Your task to perform on an android device: Search for flights from NYC to San Diego Image 0: 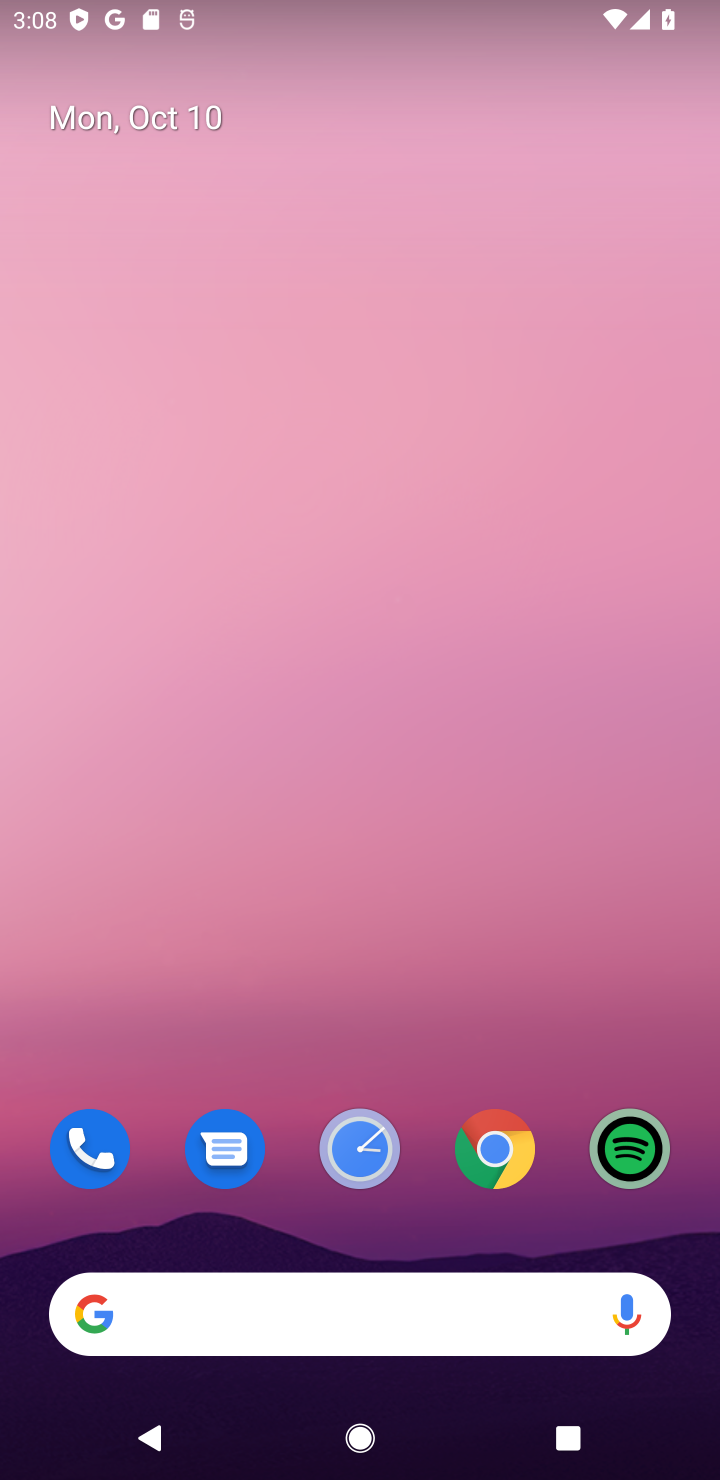
Step 0: click (325, 1319)
Your task to perform on an android device: Search for flights from NYC to San Diego Image 1: 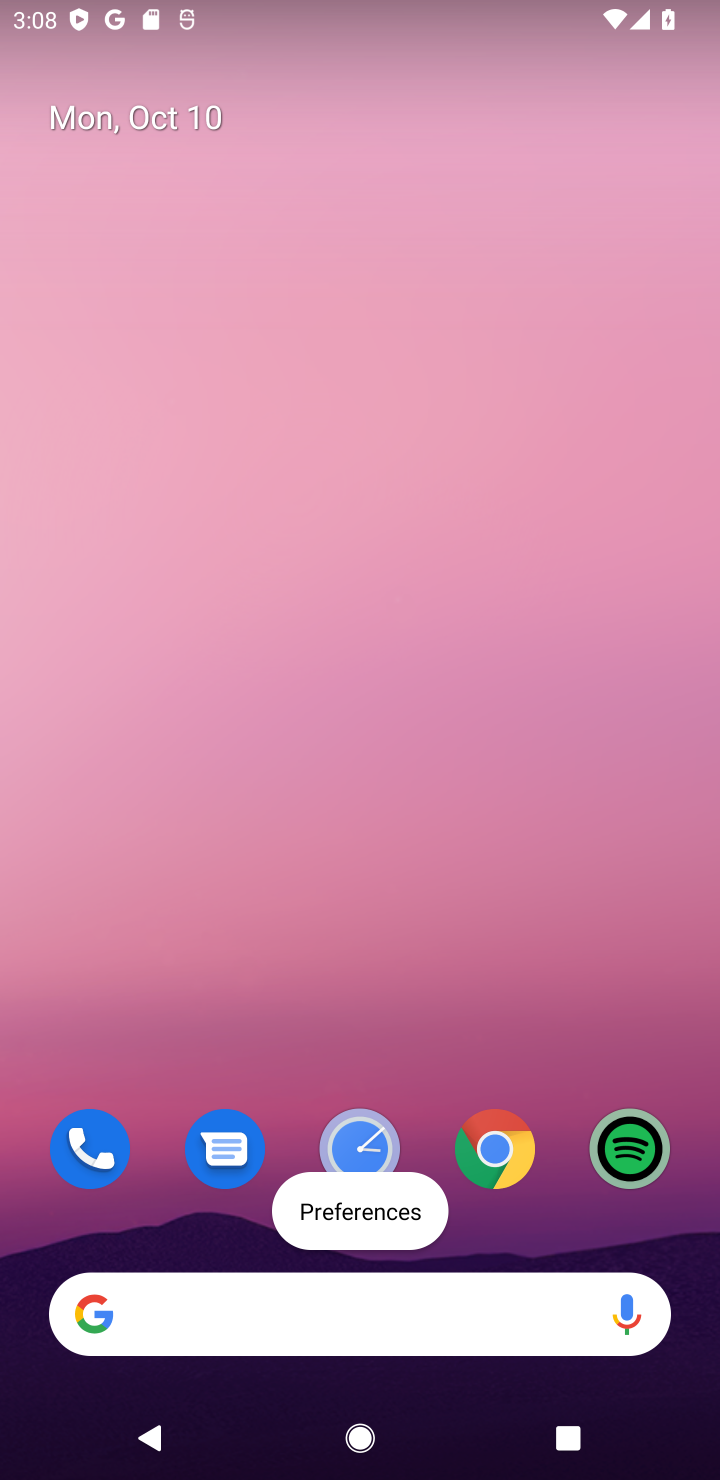
Step 1: type "flights from NYC to San Diego"
Your task to perform on an android device: Search for flights from NYC to San Diego Image 2: 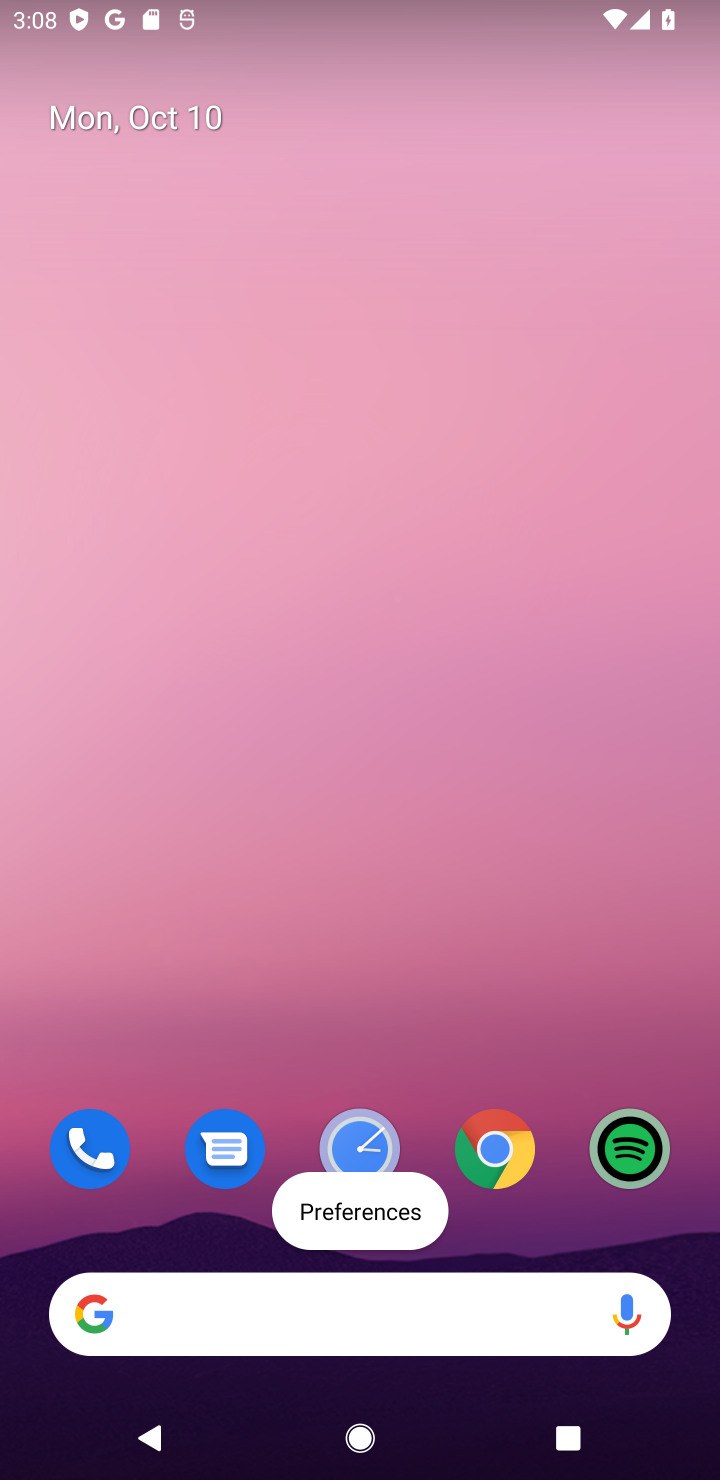
Step 2: click (250, 1321)
Your task to perform on an android device: Search for flights from NYC to San Diego Image 3: 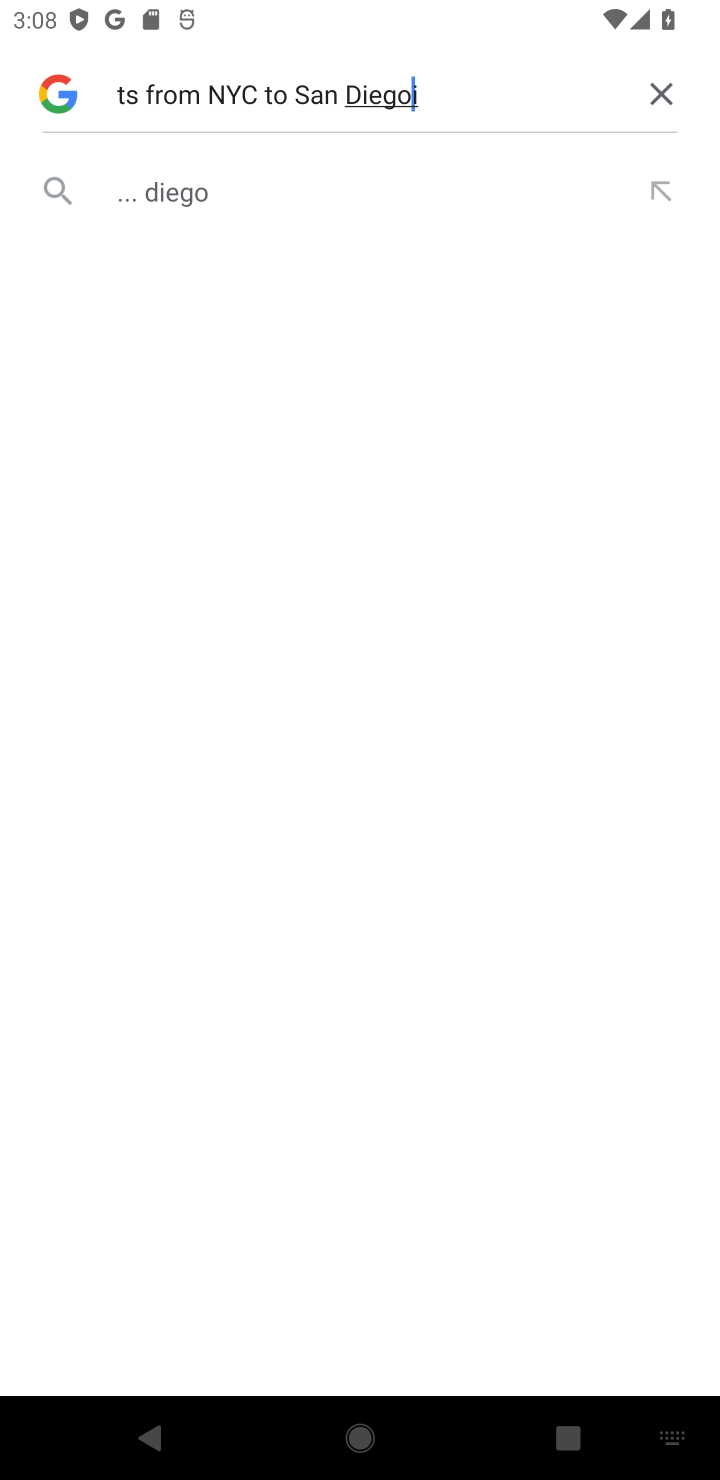
Step 3: click (277, 1293)
Your task to perform on an android device: Search for flights from NYC to San Diego Image 4: 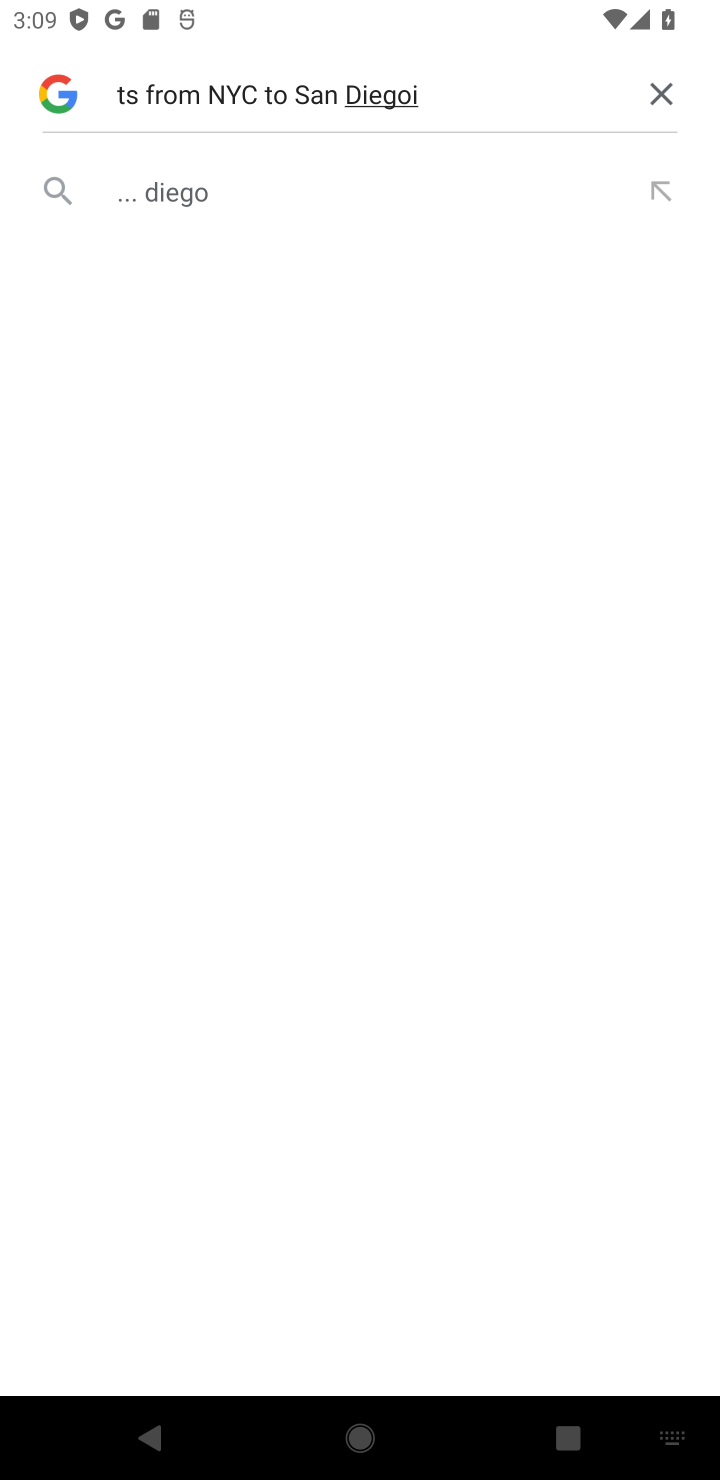
Step 4: click (469, 206)
Your task to perform on an android device: Search for flights from NYC to San Diego Image 5: 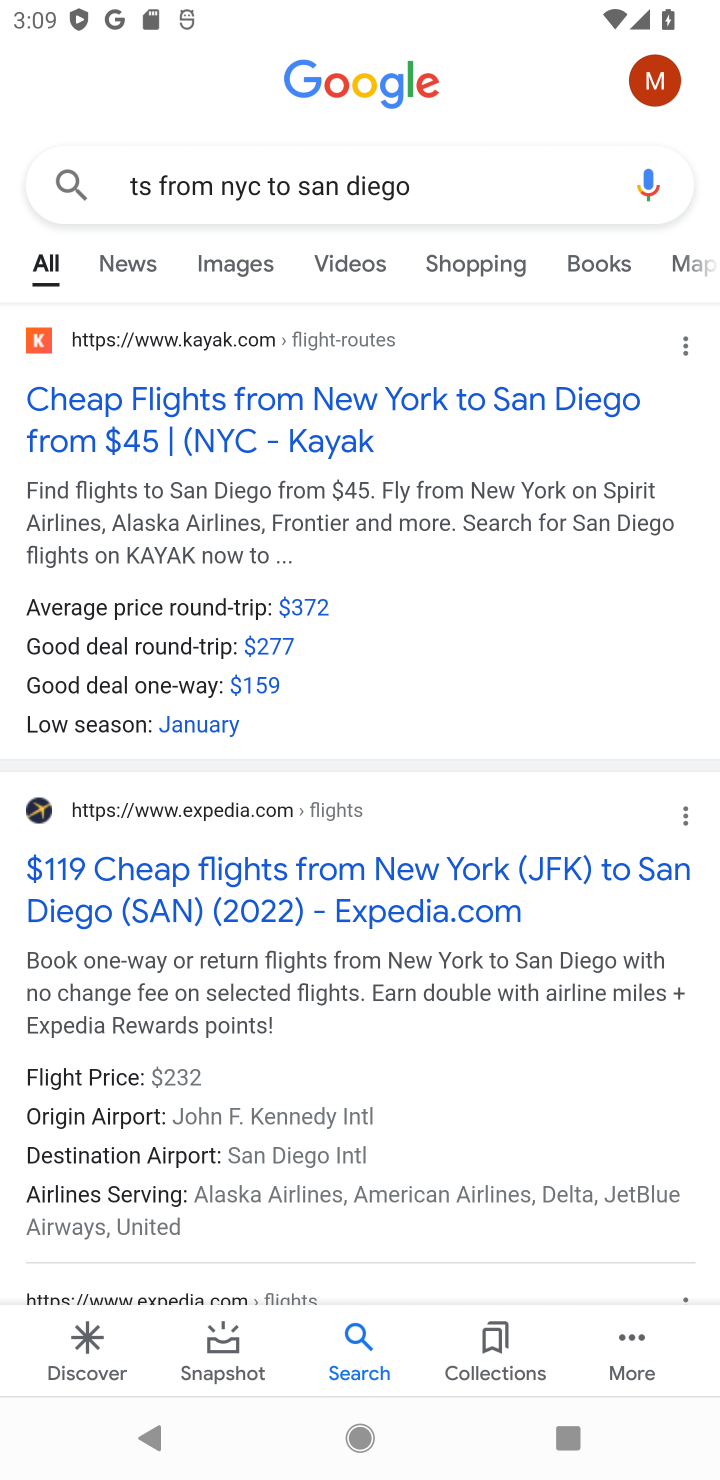
Step 5: task complete